Your task to perform on an android device: change alarm snooze length Image 0: 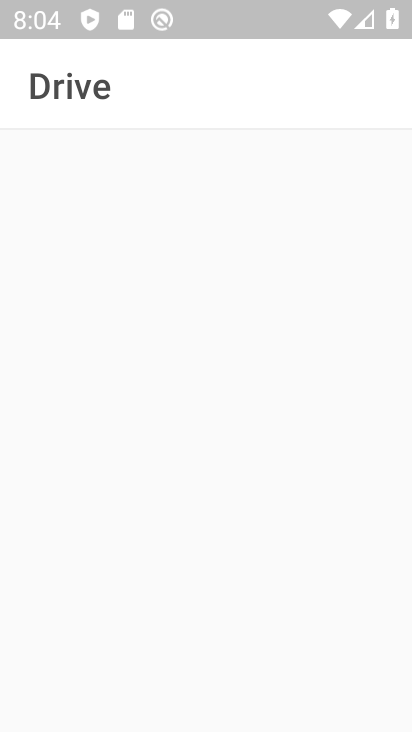
Step 0: press back button
Your task to perform on an android device: change alarm snooze length Image 1: 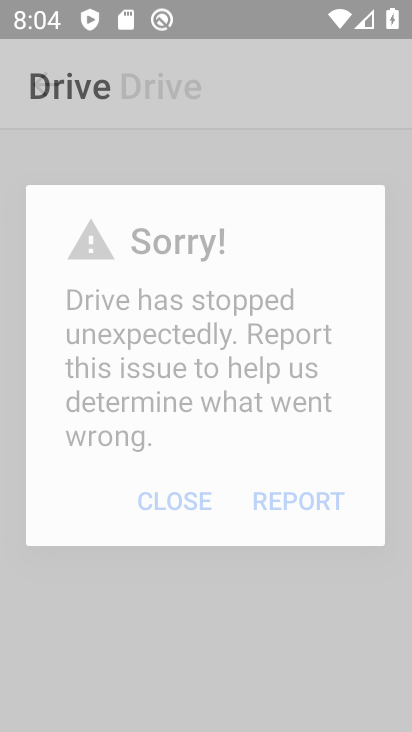
Step 1: press back button
Your task to perform on an android device: change alarm snooze length Image 2: 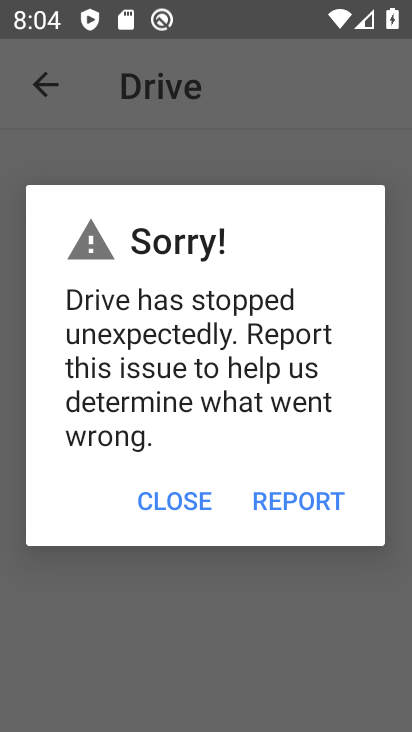
Step 2: press home button
Your task to perform on an android device: change alarm snooze length Image 3: 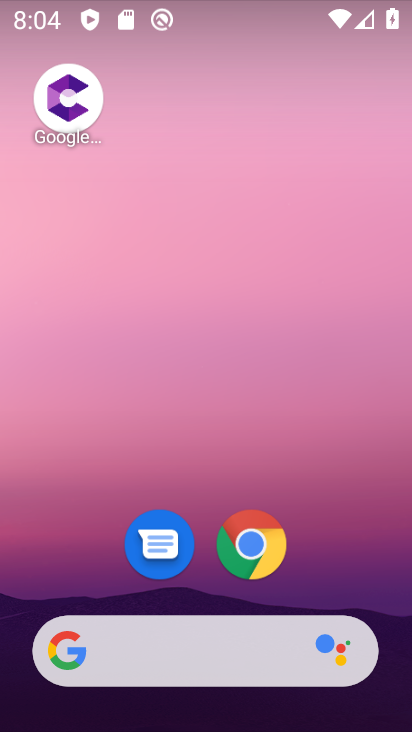
Step 3: drag from (317, 549) to (248, 37)
Your task to perform on an android device: change alarm snooze length Image 4: 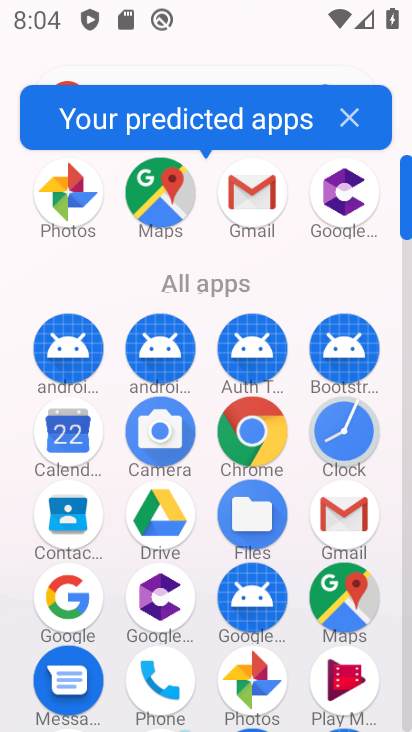
Step 4: click (345, 429)
Your task to perform on an android device: change alarm snooze length Image 5: 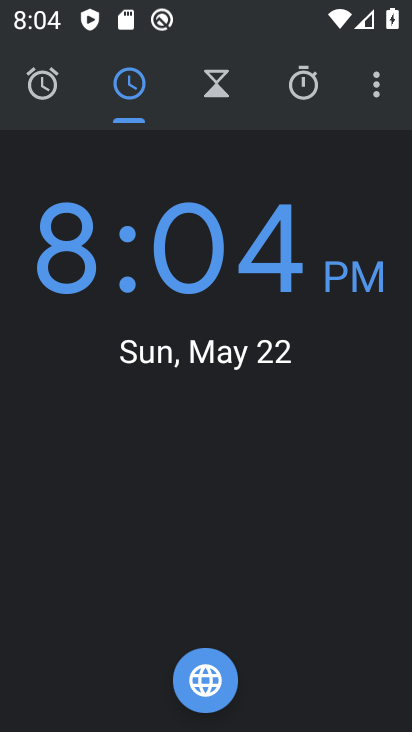
Step 5: drag from (378, 85) to (267, 133)
Your task to perform on an android device: change alarm snooze length Image 6: 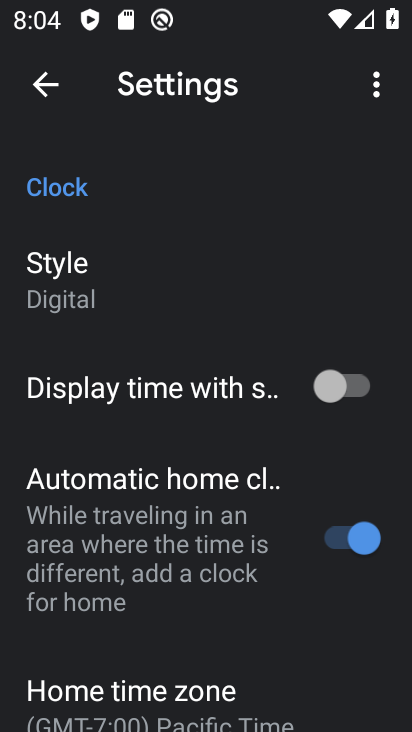
Step 6: drag from (159, 583) to (189, 190)
Your task to perform on an android device: change alarm snooze length Image 7: 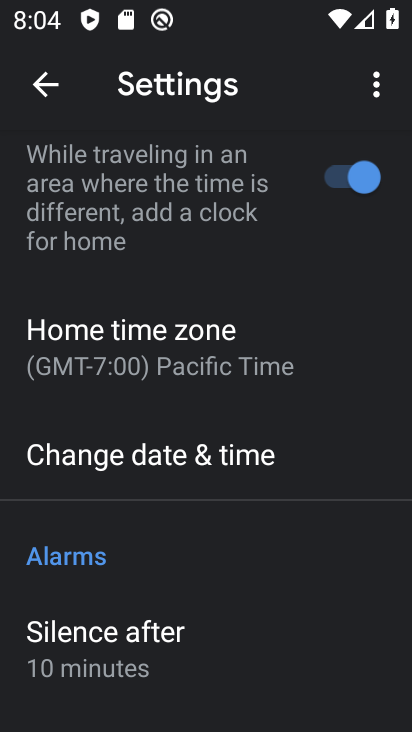
Step 7: drag from (169, 514) to (205, 111)
Your task to perform on an android device: change alarm snooze length Image 8: 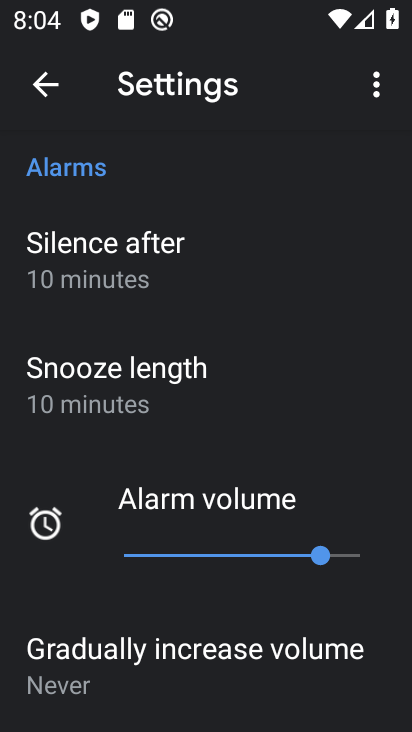
Step 8: drag from (198, 575) to (224, 154)
Your task to perform on an android device: change alarm snooze length Image 9: 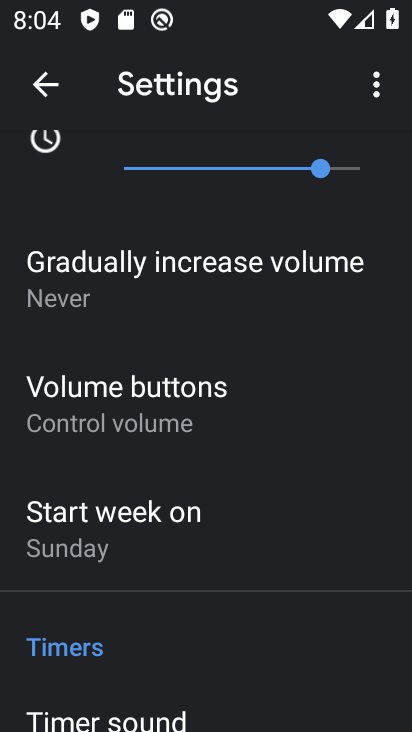
Step 9: drag from (200, 551) to (250, 144)
Your task to perform on an android device: change alarm snooze length Image 10: 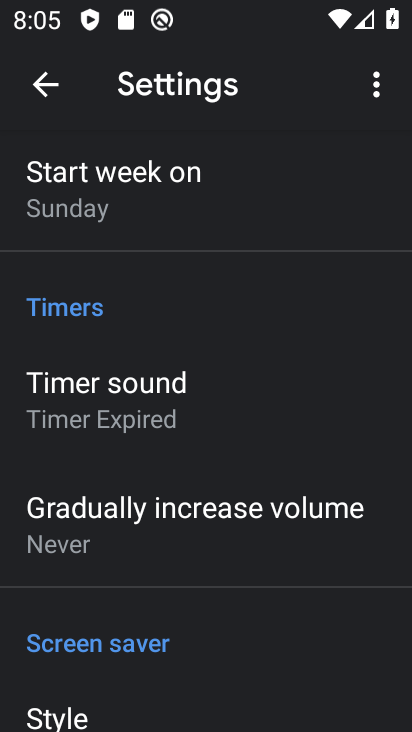
Step 10: drag from (208, 537) to (229, 140)
Your task to perform on an android device: change alarm snooze length Image 11: 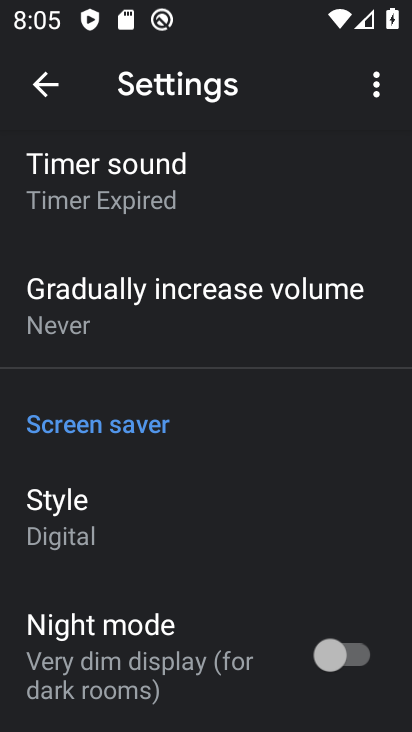
Step 11: drag from (175, 572) to (216, 144)
Your task to perform on an android device: change alarm snooze length Image 12: 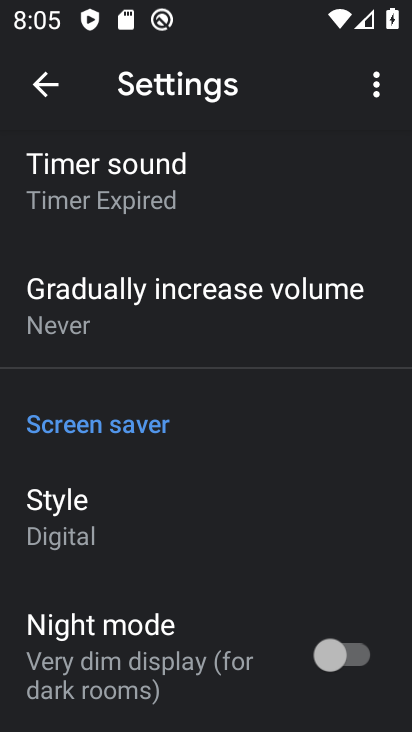
Step 12: drag from (199, 580) to (228, 137)
Your task to perform on an android device: change alarm snooze length Image 13: 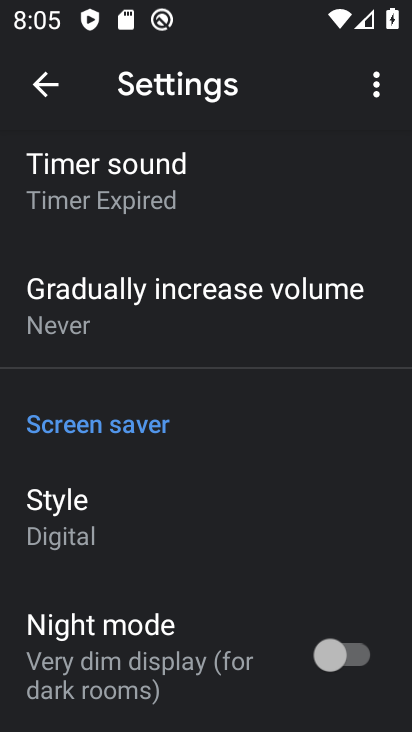
Step 13: drag from (214, 235) to (214, 514)
Your task to perform on an android device: change alarm snooze length Image 14: 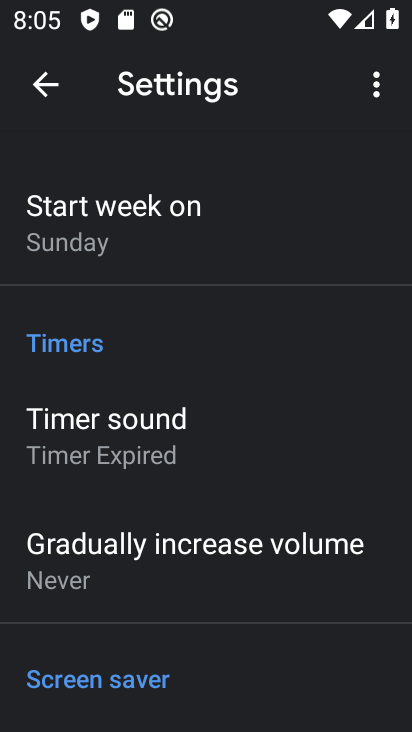
Step 14: drag from (211, 211) to (211, 633)
Your task to perform on an android device: change alarm snooze length Image 15: 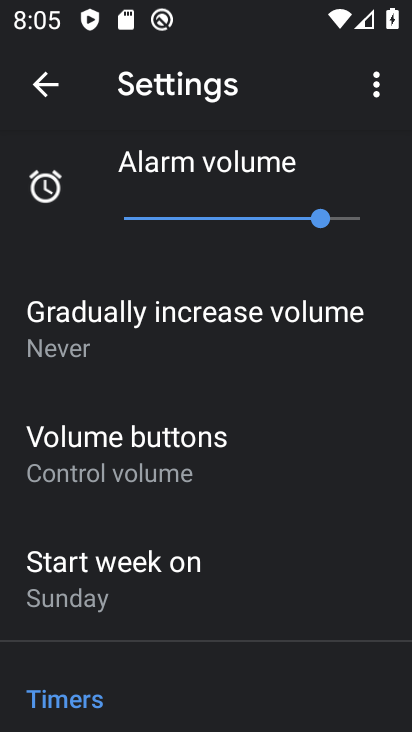
Step 15: drag from (259, 205) to (269, 583)
Your task to perform on an android device: change alarm snooze length Image 16: 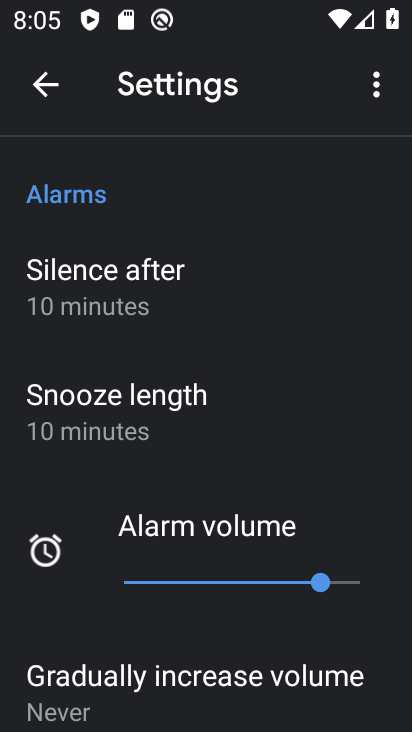
Step 16: drag from (230, 315) to (229, 709)
Your task to perform on an android device: change alarm snooze length Image 17: 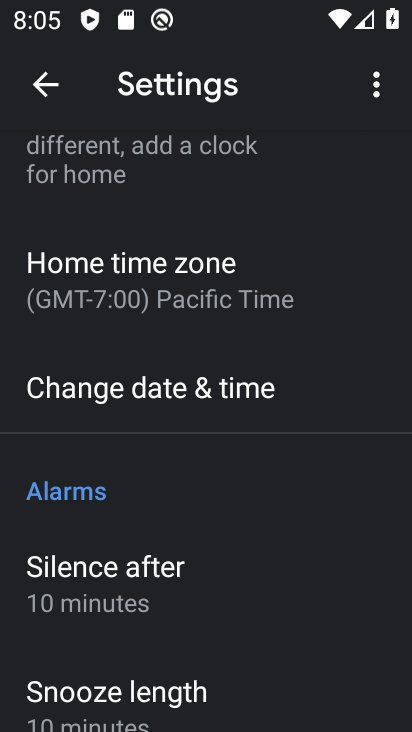
Step 17: drag from (202, 257) to (206, 667)
Your task to perform on an android device: change alarm snooze length Image 18: 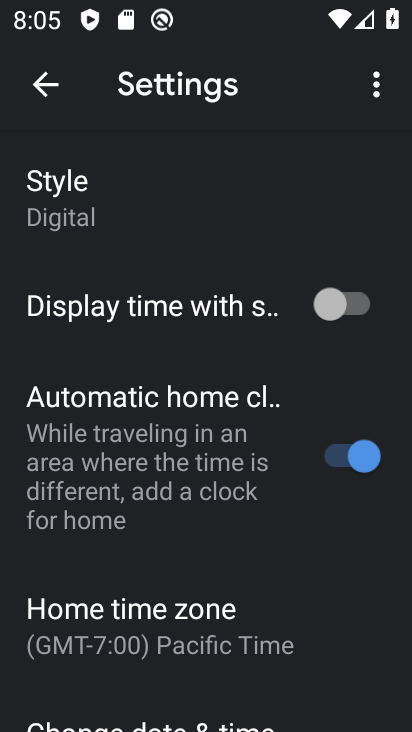
Step 18: drag from (185, 213) to (183, 640)
Your task to perform on an android device: change alarm snooze length Image 19: 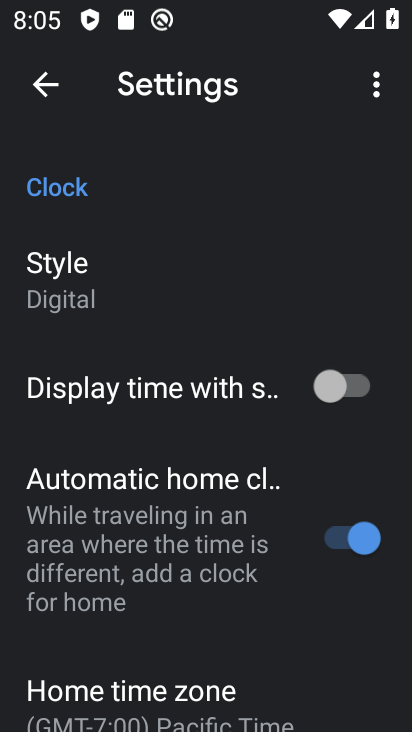
Step 19: drag from (204, 525) to (200, 175)
Your task to perform on an android device: change alarm snooze length Image 20: 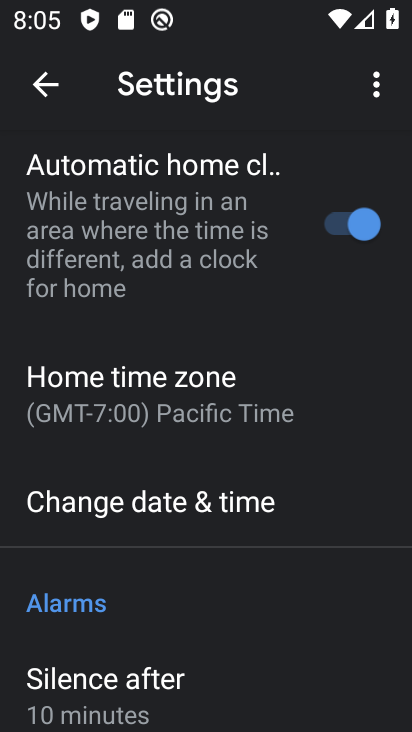
Step 20: drag from (193, 546) to (197, 226)
Your task to perform on an android device: change alarm snooze length Image 21: 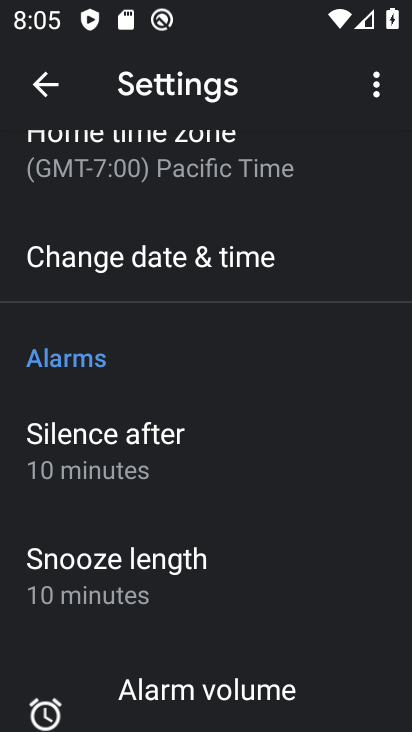
Step 21: click (180, 570)
Your task to perform on an android device: change alarm snooze length Image 22: 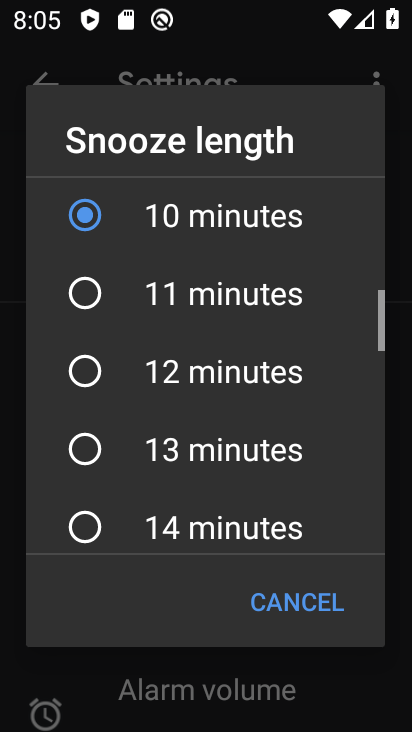
Step 22: click (178, 270)
Your task to perform on an android device: change alarm snooze length Image 23: 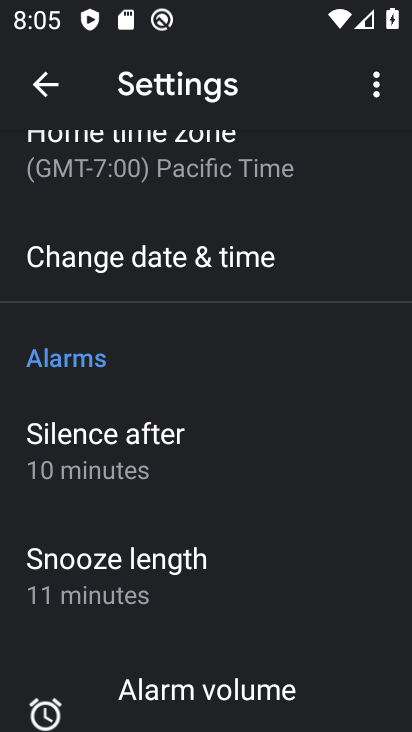
Step 23: task complete